Your task to perform on an android device: visit the assistant section in the google photos Image 0: 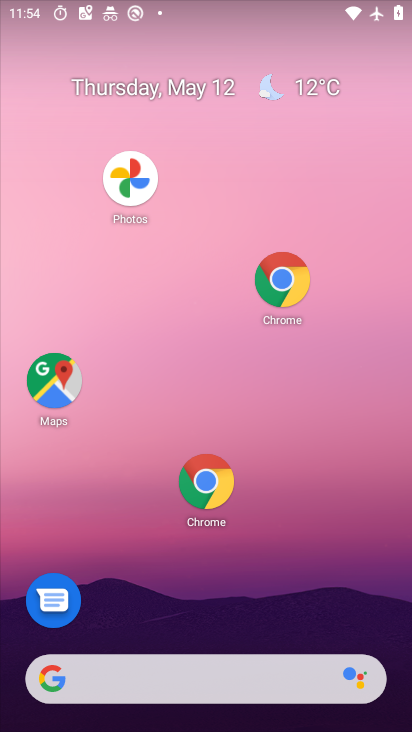
Step 0: drag from (0, 0) to (57, 48)
Your task to perform on an android device: visit the assistant section in the google photos Image 1: 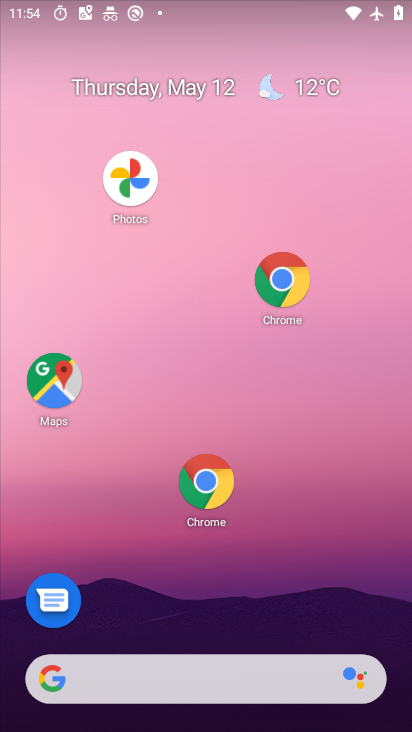
Step 1: drag from (389, 577) to (155, 262)
Your task to perform on an android device: visit the assistant section in the google photos Image 2: 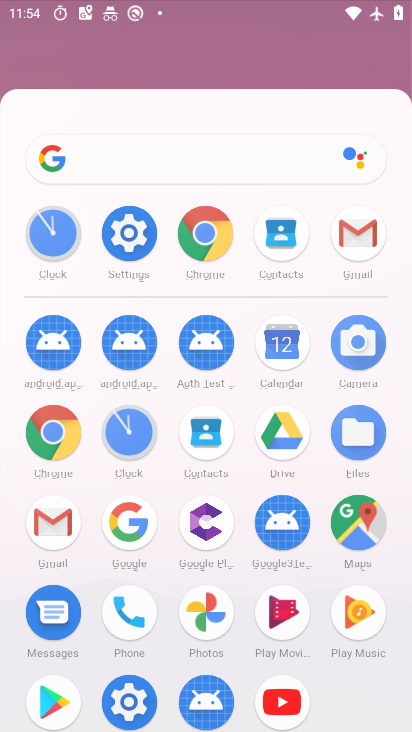
Step 2: drag from (318, 485) to (90, 1)
Your task to perform on an android device: visit the assistant section in the google photos Image 3: 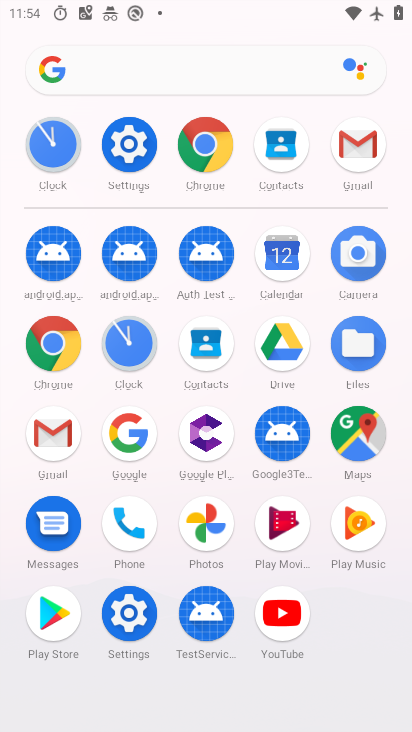
Step 3: click (204, 540)
Your task to perform on an android device: visit the assistant section in the google photos Image 4: 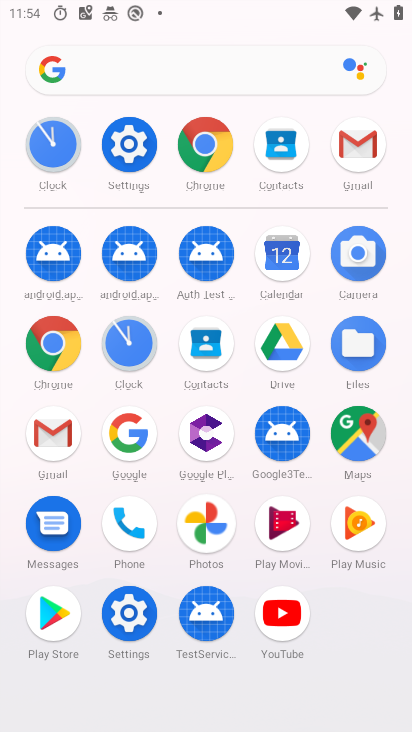
Step 4: click (204, 540)
Your task to perform on an android device: visit the assistant section in the google photos Image 5: 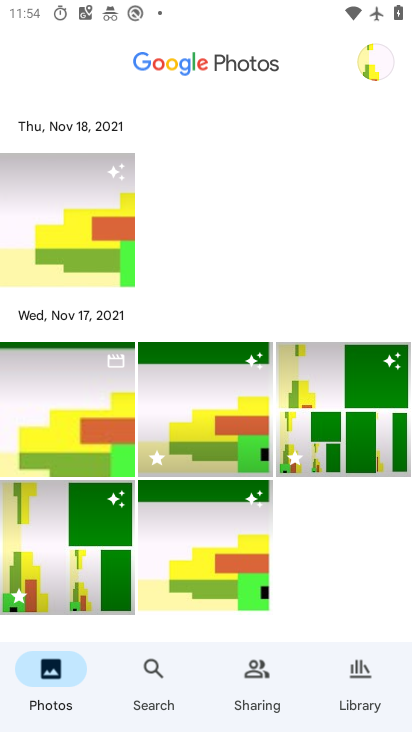
Step 5: drag from (171, 481) to (164, 118)
Your task to perform on an android device: visit the assistant section in the google photos Image 6: 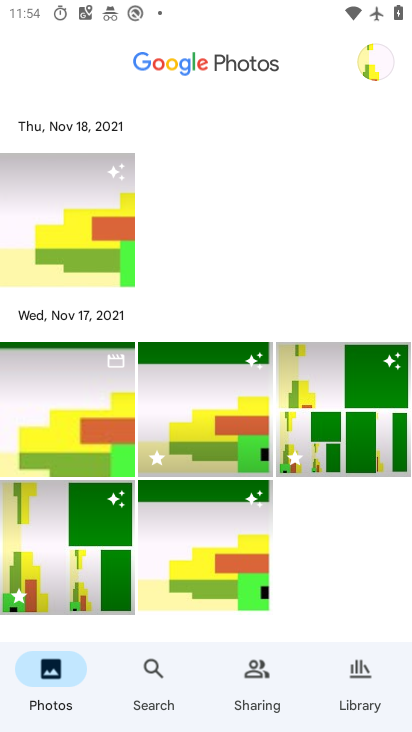
Step 6: drag from (214, 378) to (162, 89)
Your task to perform on an android device: visit the assistant section in the google photos Image 7: 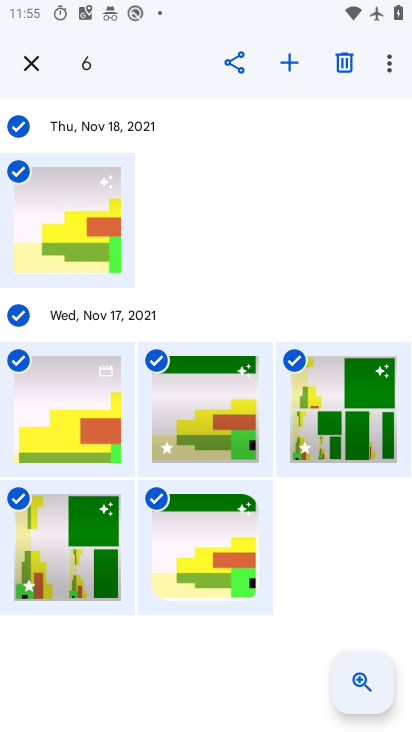
Step 7: click (34, 76)
Your task to perform on an android device: visit the assistant section in the google photos Image 8: 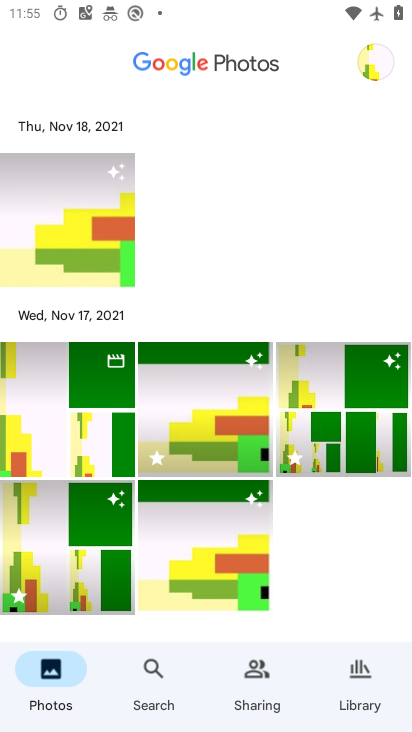
Step 8: task complete